Your task to perform on an android device: read, delete, or share a saved page in the chrome app Image 0: 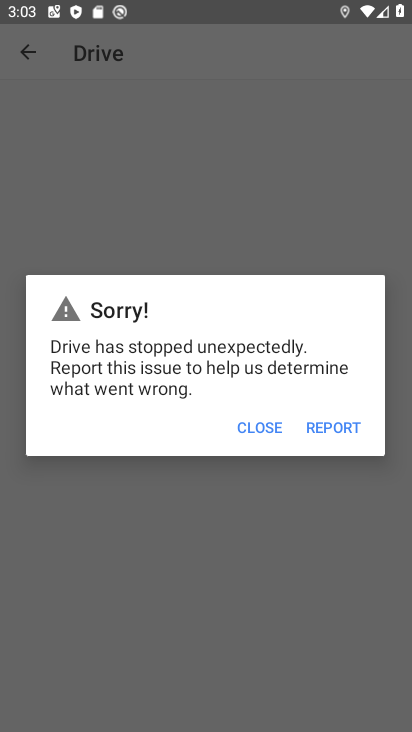
Step 0: press back button
Your task to perform on an android device: read, delete, or share a saved page in the chrome app Image 1: 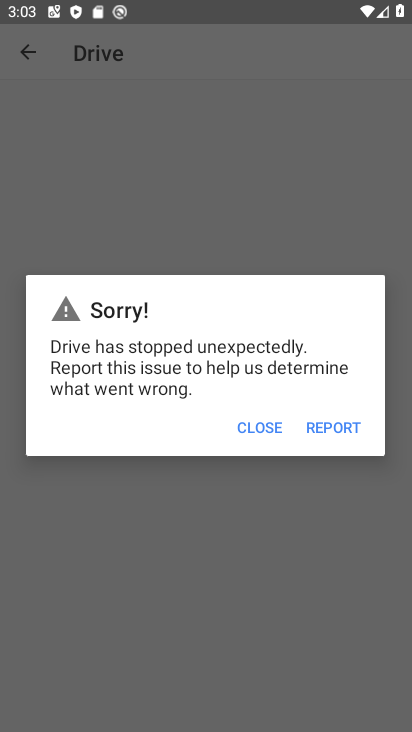
Step 1: press home button
Your task to perform on an android device: read, delete, or share a saved page in the chrome app Image 2: 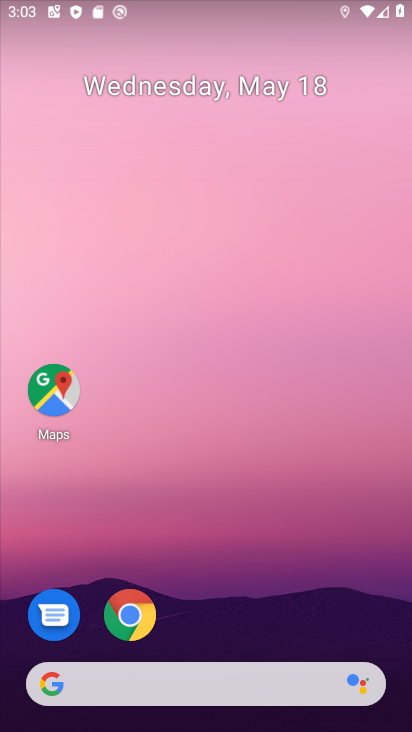
Step 2: click (133, 622)
Your task to perform on an android device: read, delete, or share a saved page in the chrome app Image 3: 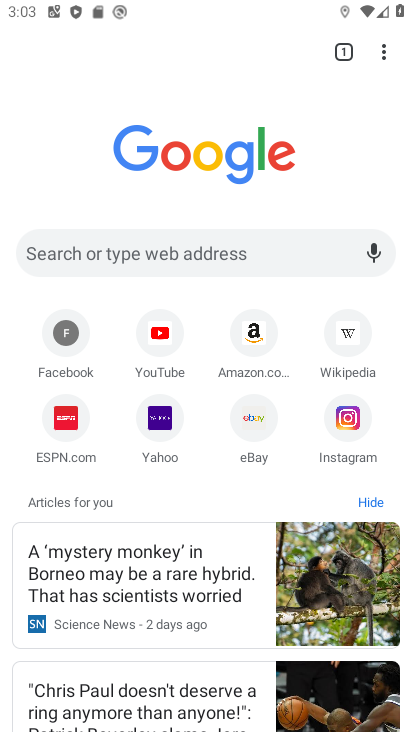
Step 3: drag from (384, 59) to (317, 341)
Your task to perform on an android device: read, delete, or share a saved page in the chrome app Image 4: 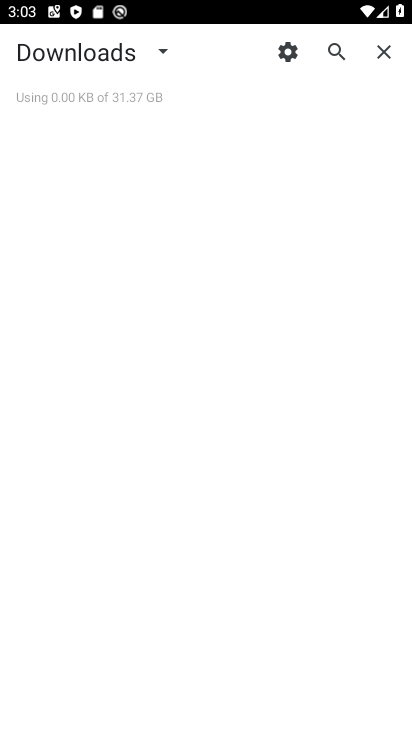
Step 4: click (126, 72)
Your task to perform on an android device: read, delete, or share a saved page in the chrome app Image 5: 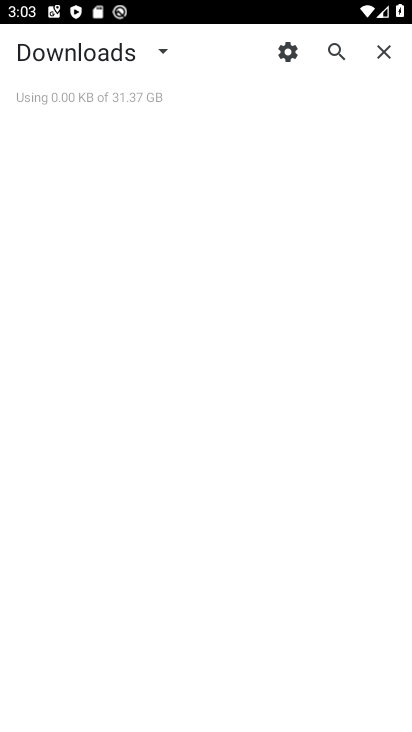
Step 5: click (165, 59)
Your task to perform on an android device: read, delete, or share a saved page in the chrome app Image 6: 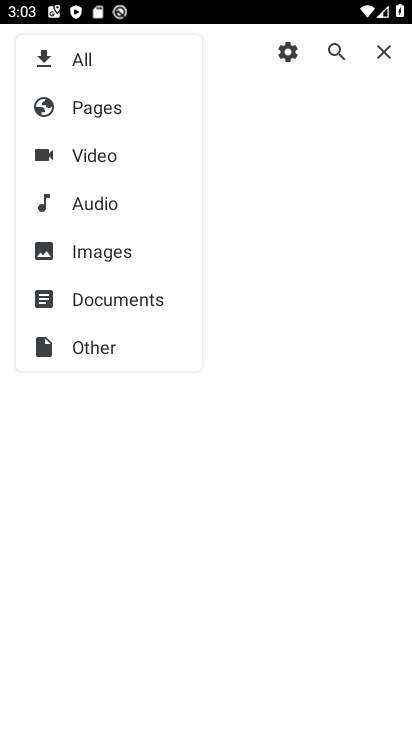
Step 6: click (142, 110)
Your task to perform on an android device: read, delete, or share a saved page in the chrome app Image 7: 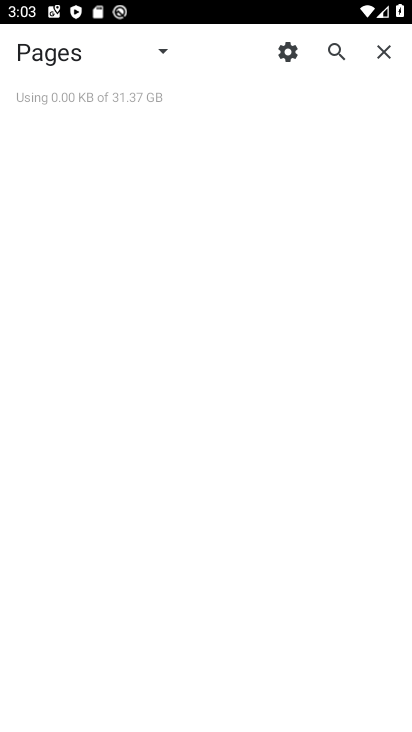
Step 7: task complete